Your task to perform on an android device: open a new tab in the chrome app Image 0: 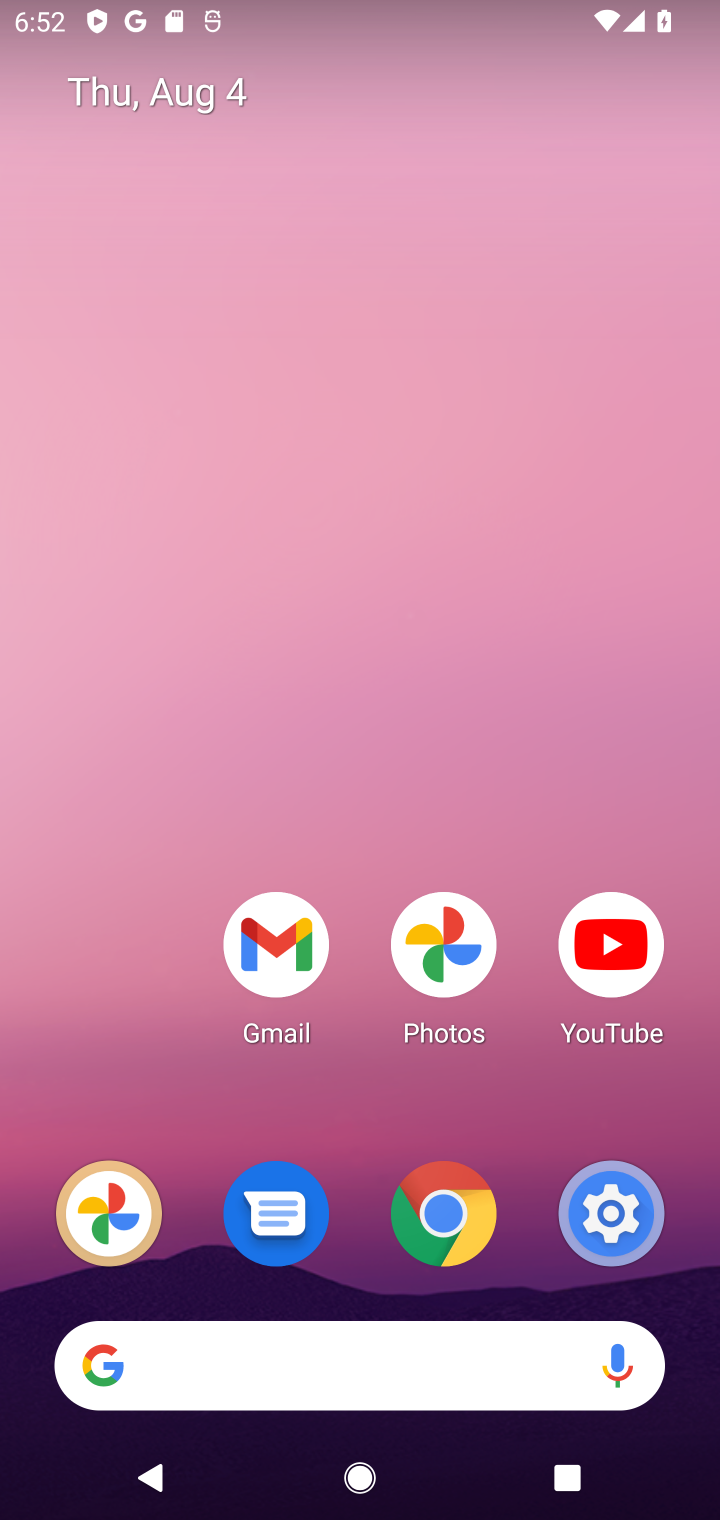
Step 0: click (450, 1209)
Your task to perform on an android device: open a new tab in the chrome app Image 1: 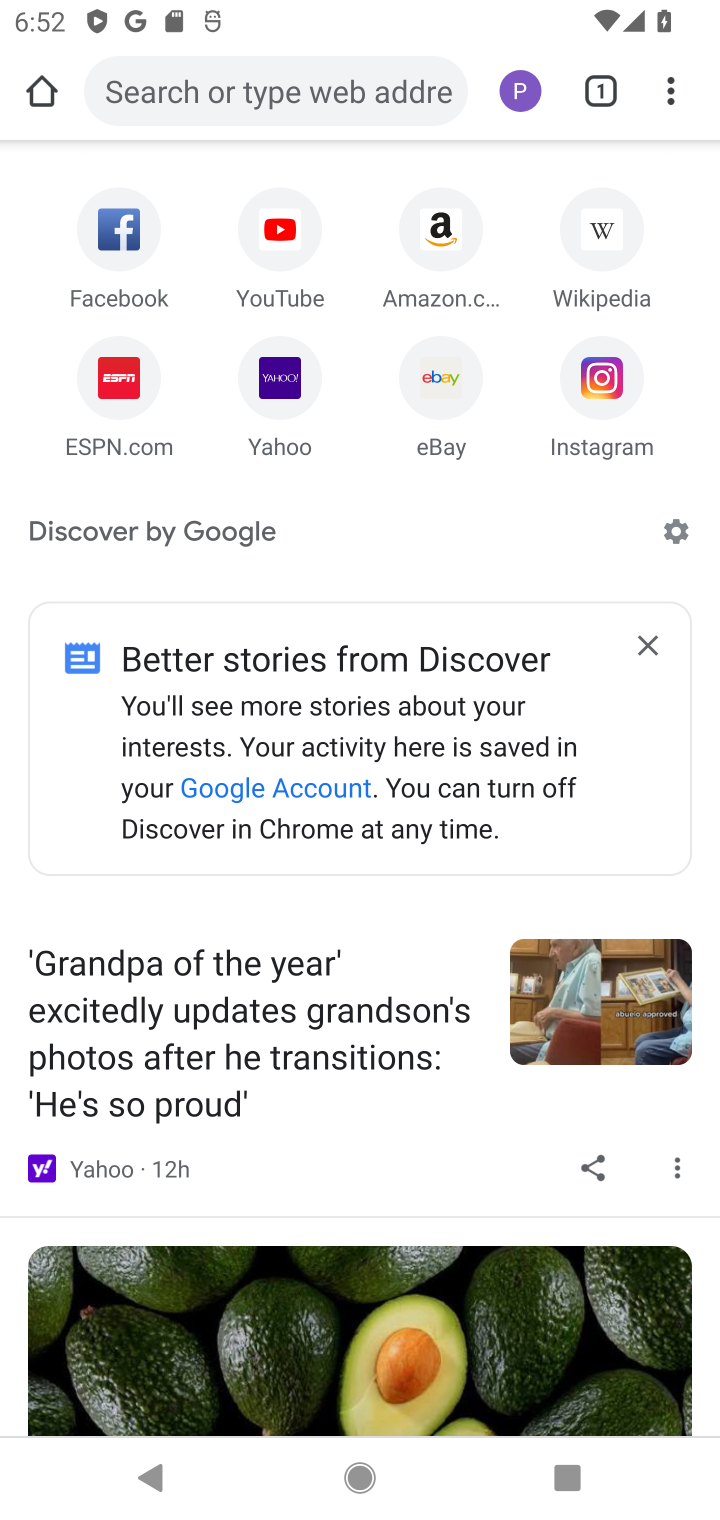
Step 1: click (676, 100)
Your task to perform on an android device: open a new tab in the chrome app Image 2: 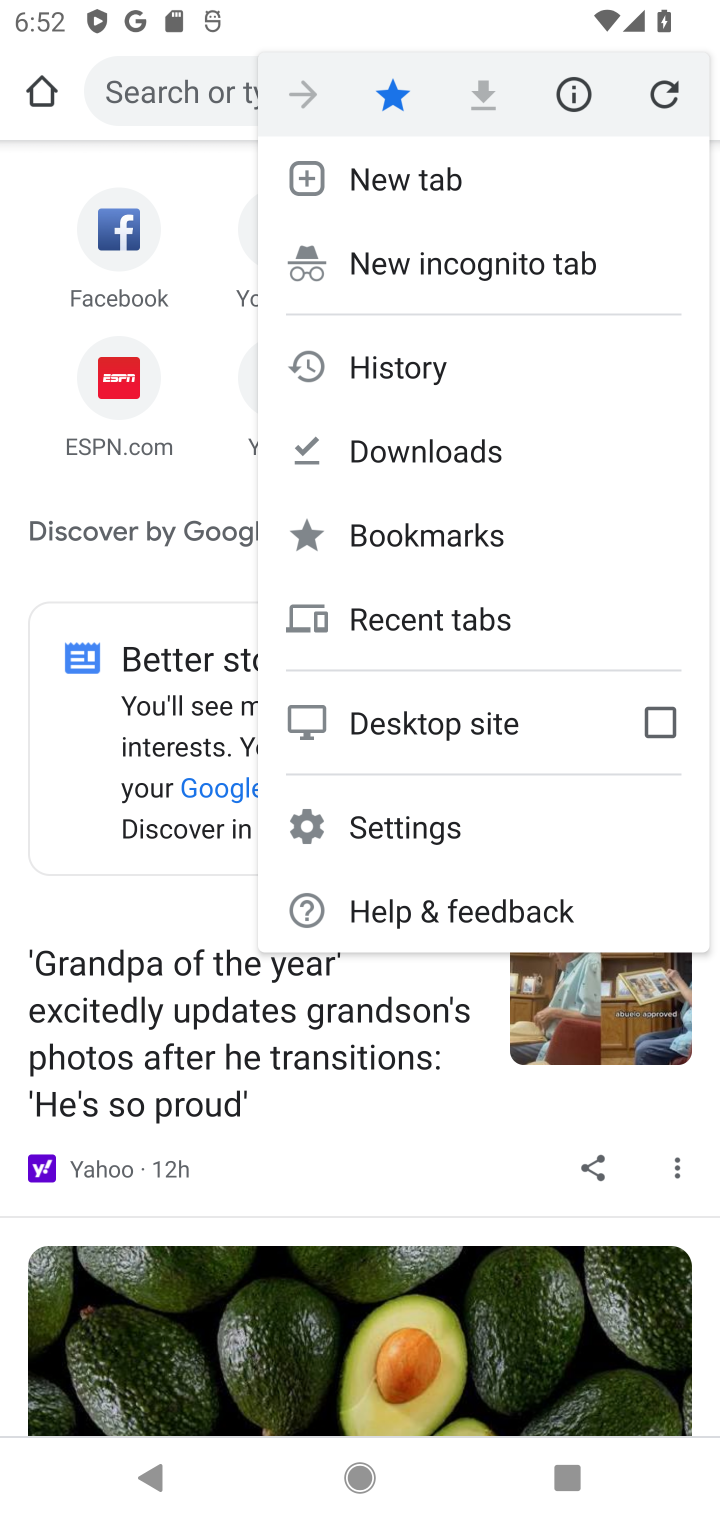
Step 2: click (451, 171)
Your task to perform on an android device: open a new tab in the chrome app Image 3: 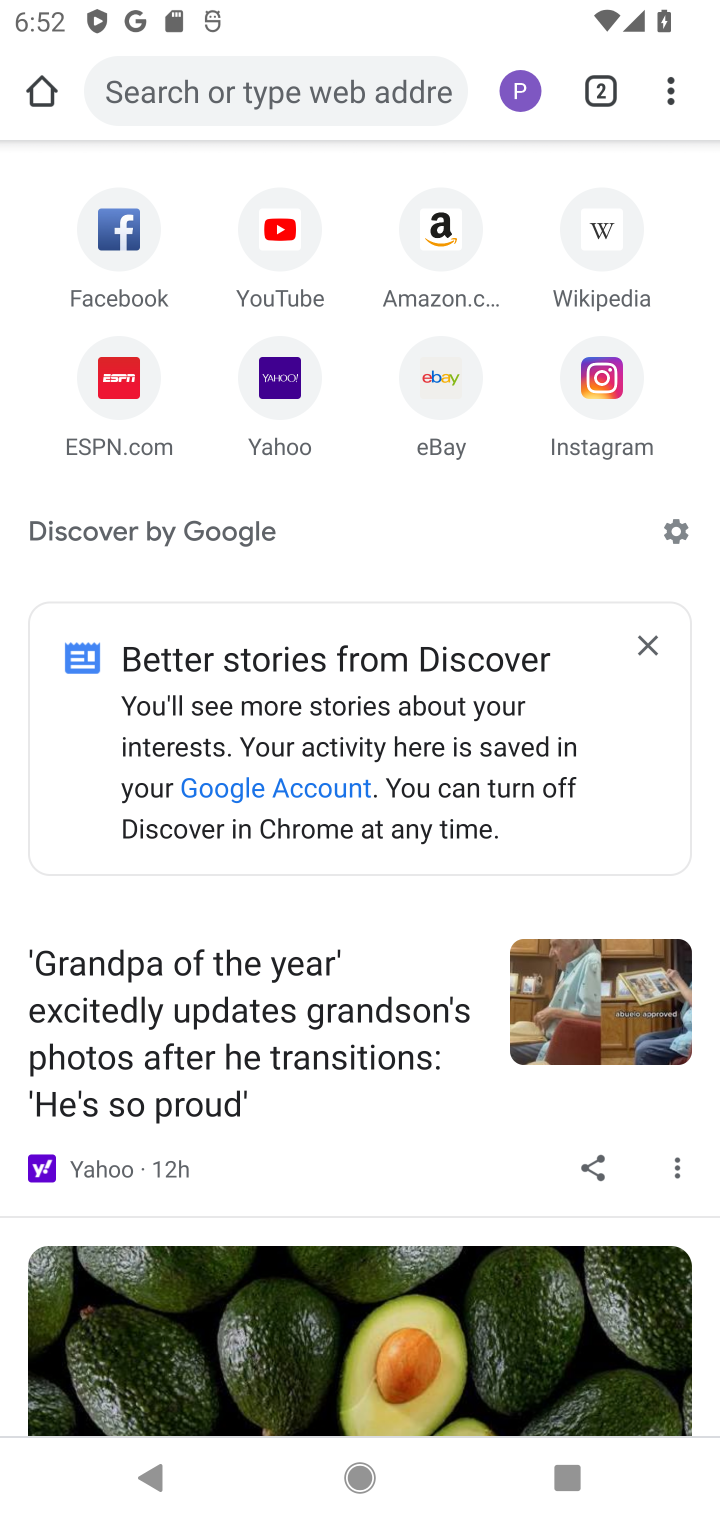
Step 3: task complete